Your task to perform on an android device: Go to ESPN.com Image 0: 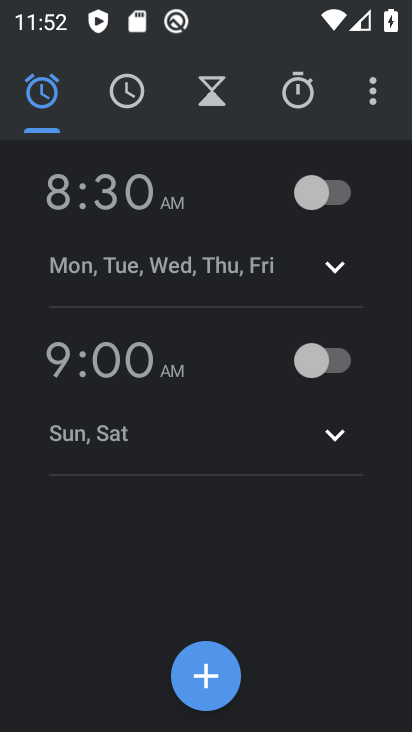
Step 0: press back button
Your task to perform on an android device: Go to ESPN.com Image 1: 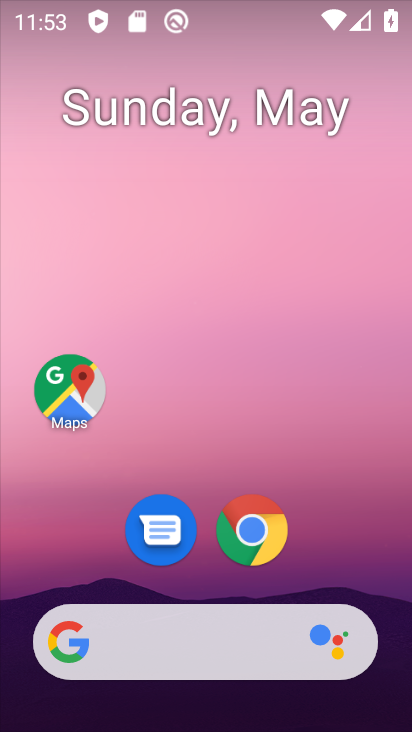
Step 1: click (245, 508)
Your task to perform on an android device: Go to ESPN.com Image 2: 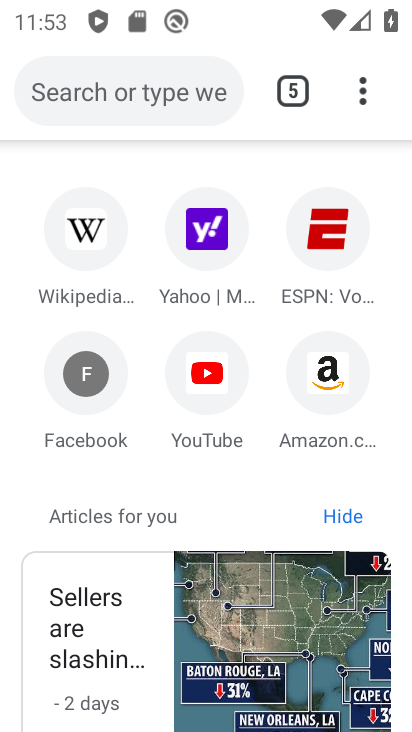
Step 2: click (315, 255)
Your task to perform on an android device: Go to ESPN.com Image 3: 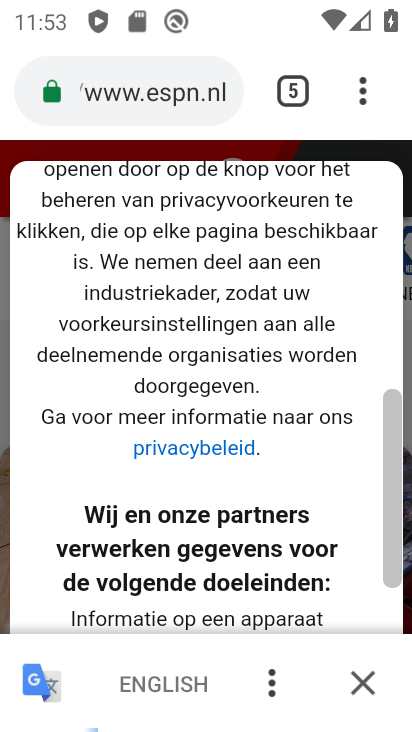
Step 3: task complete